Your task to perform on an android device: install app "Gmail" Image 0: 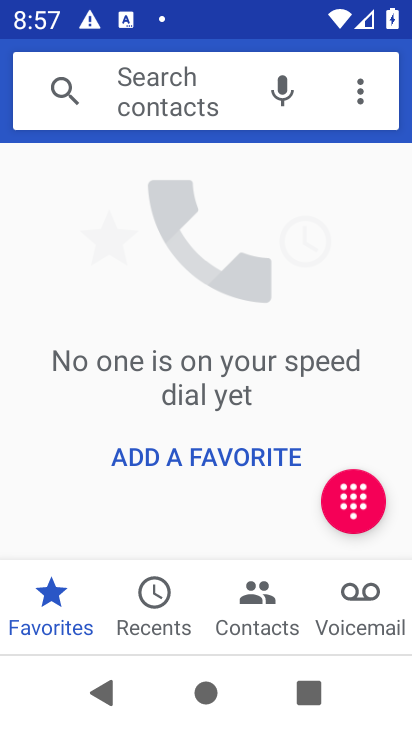
Step 0: press home button
Your task to perform on an android device: install app "Gmail" Image 1: 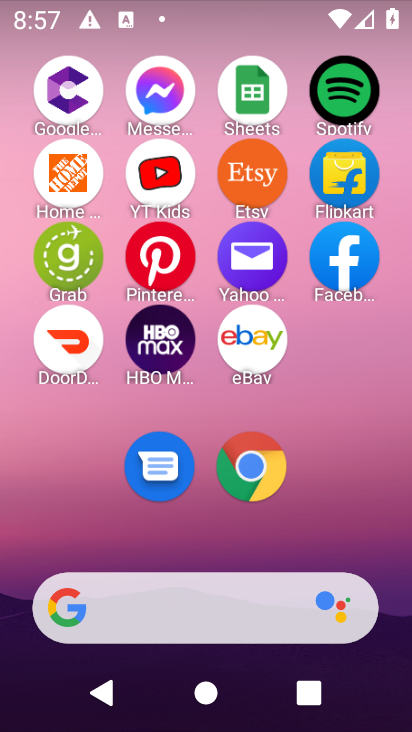
Step 1: drag from (93, 496) to (251, 5)
Your task to perform on an android device: install app "Gmail" Image 2: 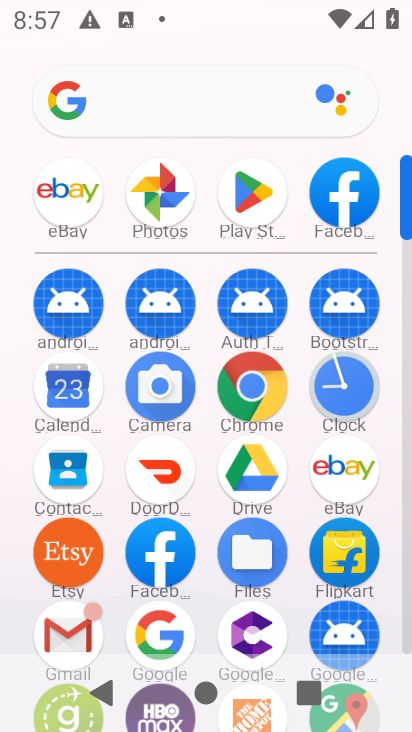
Step 2: drag from (176, 588) to (218, 315)
Your task to perform on an android device: install app "Gmail" Image 3: 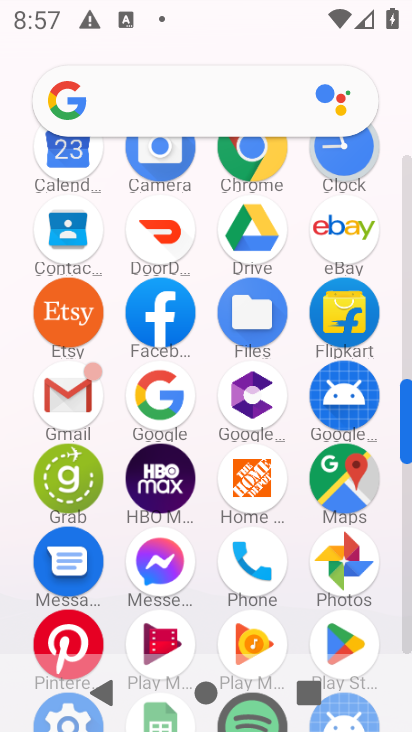
Step 3: click (61, 383)
Your task to perform on an android device: install app "Gmail" Image 4: 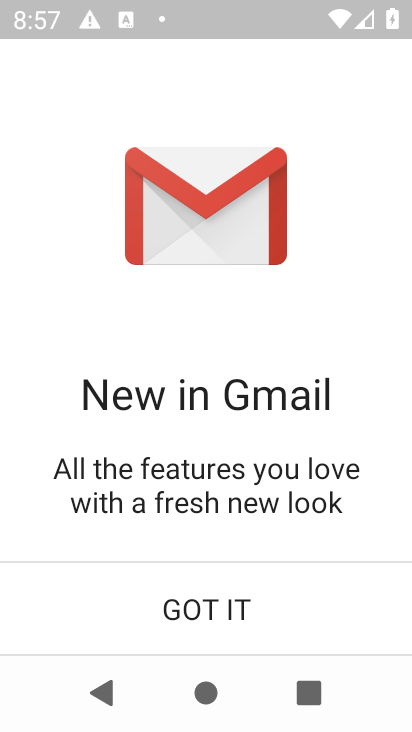
Step 4: task complete